Your task to perform on an android device: see sites visited before in the chrome app Image 0: 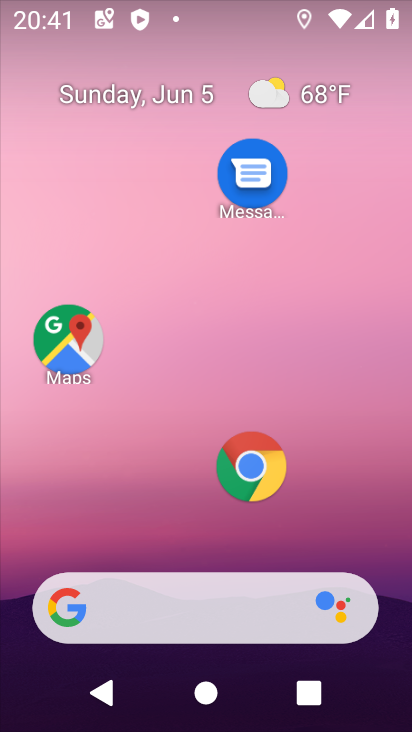
Step 0: click (238, 73)
Your task to perform on an android device: see sites visited before in the chrome app Image 1: 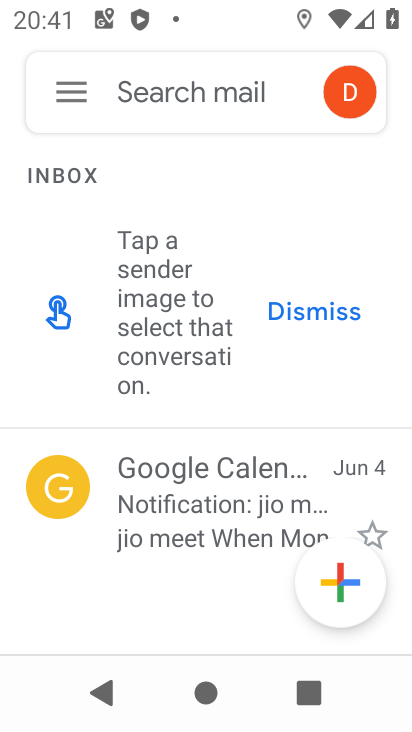
Step 1: press home button
Your task to perform on an android device: see sites visited before in the chrome app Image 2: 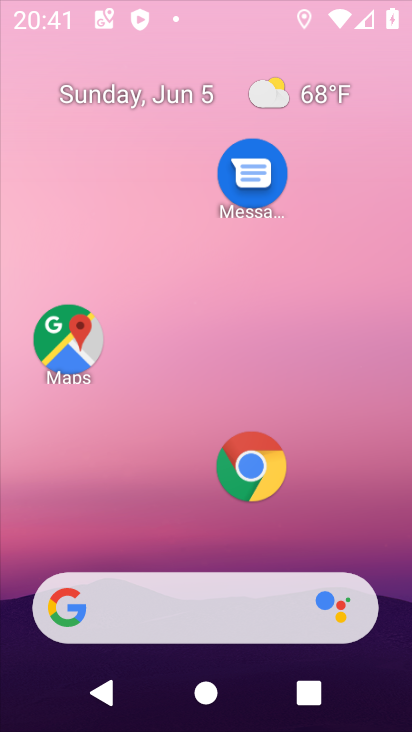
Step 2: drag from (224, 570) to (300, 130)
Your task to perform on an android device: see sites visited before in the chrome app Image 3: 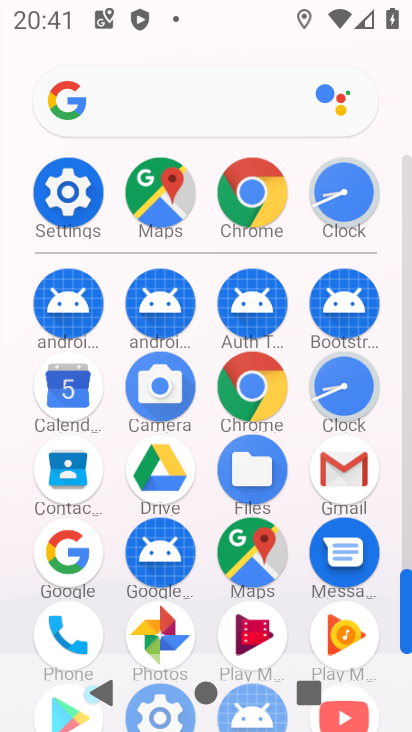
Step 3: click (252, 390)
Your task to perform on an android device: see sites visited before in the chrome app Image 4: 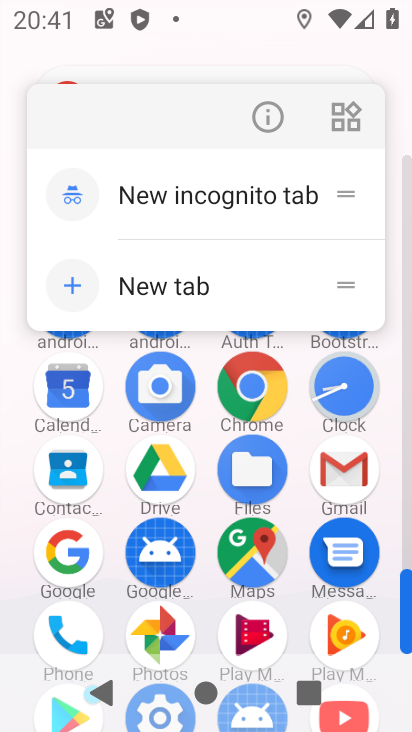
Step 4: click (276, 120)
Your task to perform on an android device: see sites visited before in the chrome app Image 5: 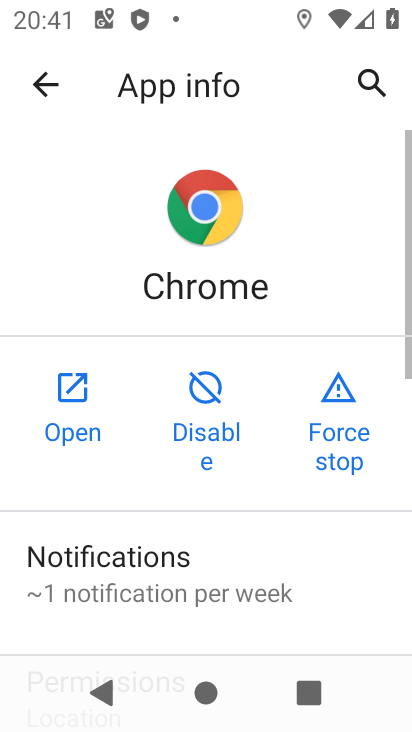
Step 5: click (95, 385)
Your task to perform on an android device: see sites visited before in the chrome app Image 6: 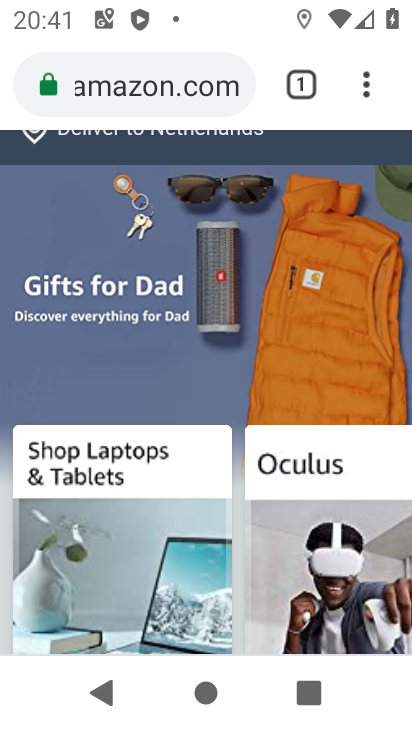
Step 6: drag from (342, 121) to (298, 678)
Your task to perform on an android device: see sites visited before in the chrome app Image 7: 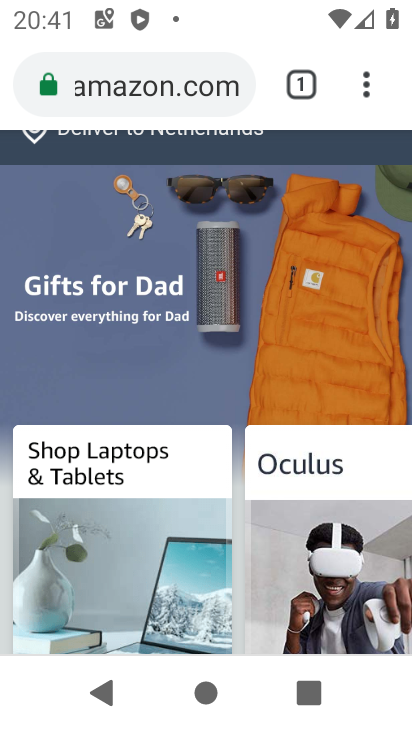
Step 7: click (377, 94)
Your task to perform on an android device: see sites visited before in the chrome app Image 8: 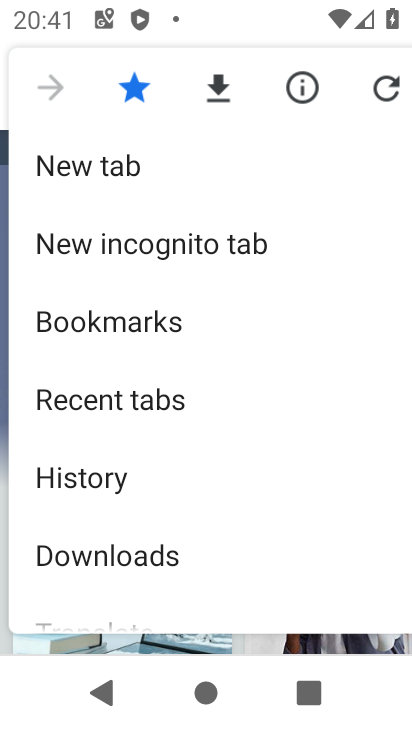
Step 8: drag from (165, 520) to (272, 157)
Your task to perform on an android device: see sites visited before in the chrome app Image 9: 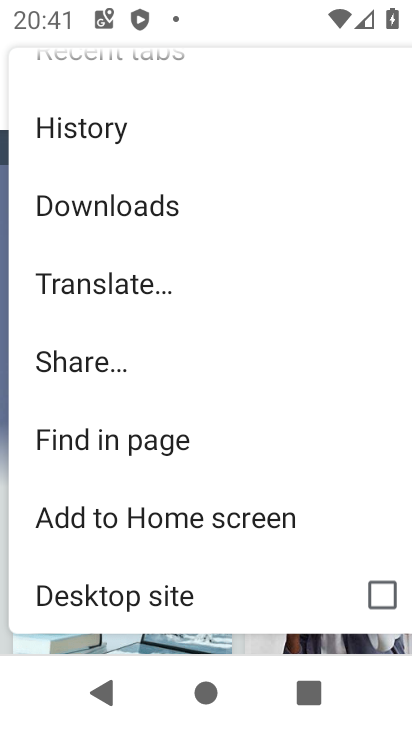
Step 9: click (173, 116)
Your task to perform on an android device: see sites visited before in the chrome app Image 10: 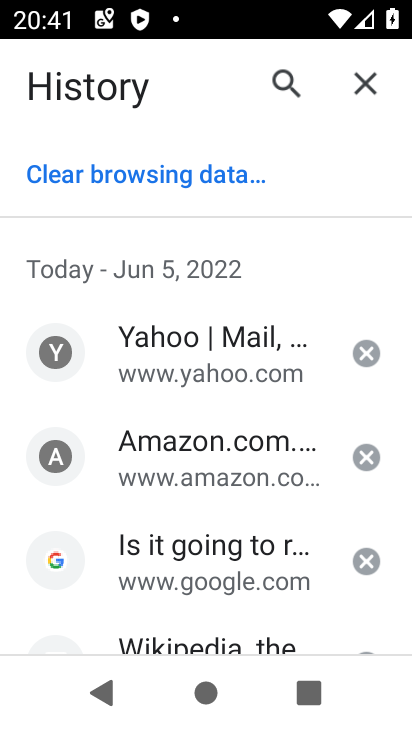
Step 10: task complete